Your task to perform on an android device: Open the calendar app, open the side menu, and click the "Day" option Image 0: 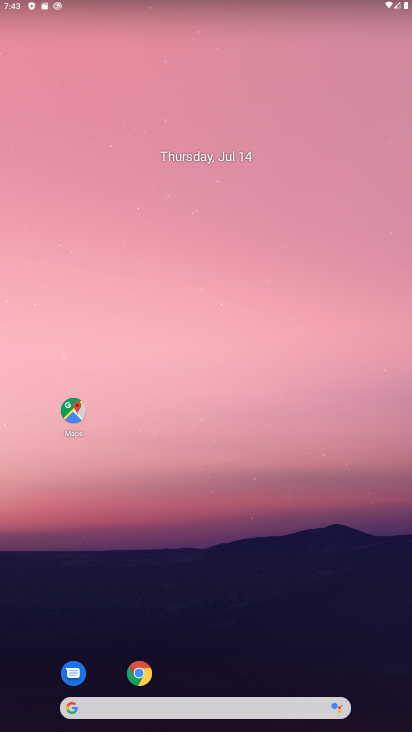
Step 0: drag from (168, 659) to (185, 352)
Your task to perform on an android device: Open the calendar app, open the side menu, and click the "Day" option Image 1: 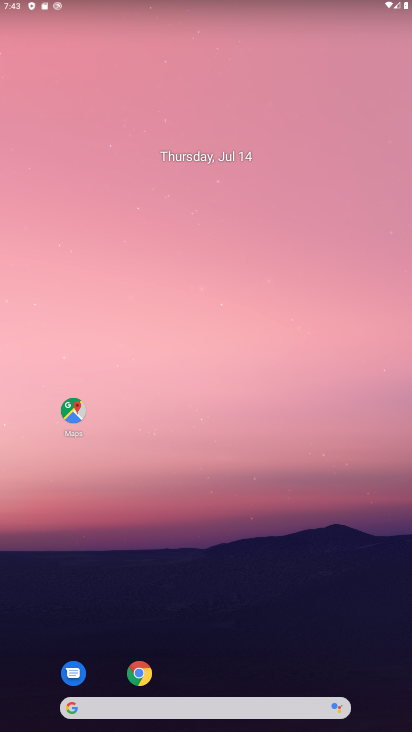
Step 1: drag from (185, 650) to (201, 184)
Your task to perform on an android device: Open the calendar app, open the side menu, and click the "Day" option Image 2: 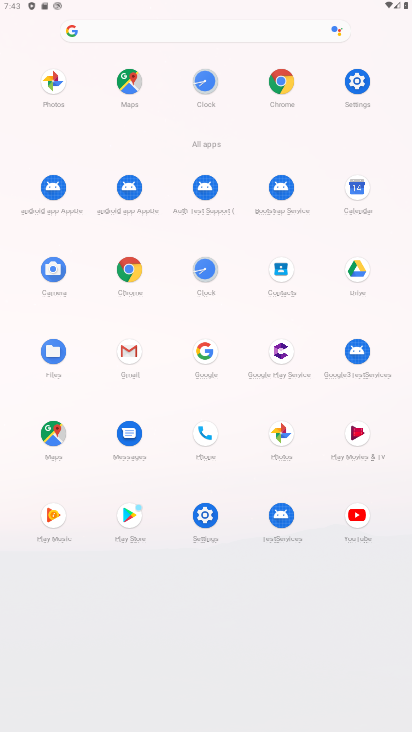
Step 2: click (359, 184)
Your task to perform on an android device: Open the calendar app, open the side menu, and click the "Day" option Image 3: 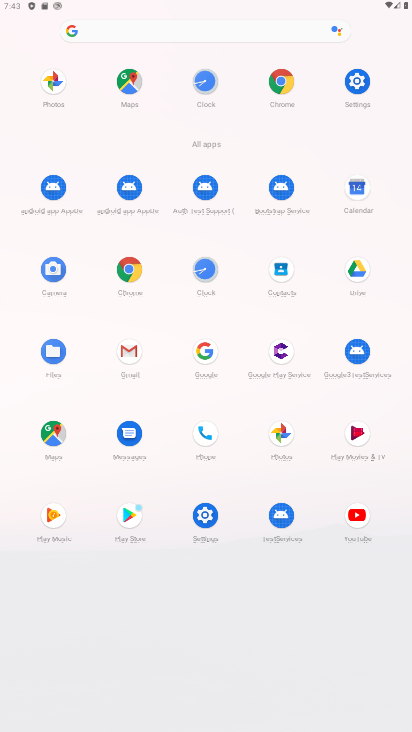
Step 3: click (356, 181)
Your task to perform on an android device: Open the calendar app, open the side menu, and click the "Day" option Image 4: 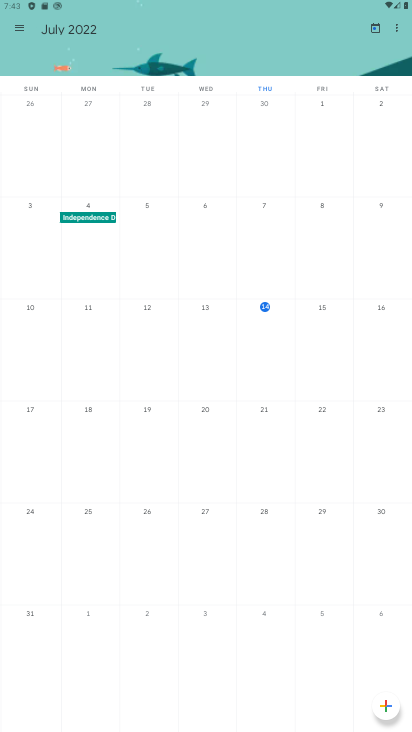
Step 4: click (16, 32)
Your task to perform on an android device: Open the calendar app, open the side menu, and click the "Day" option Image 5: 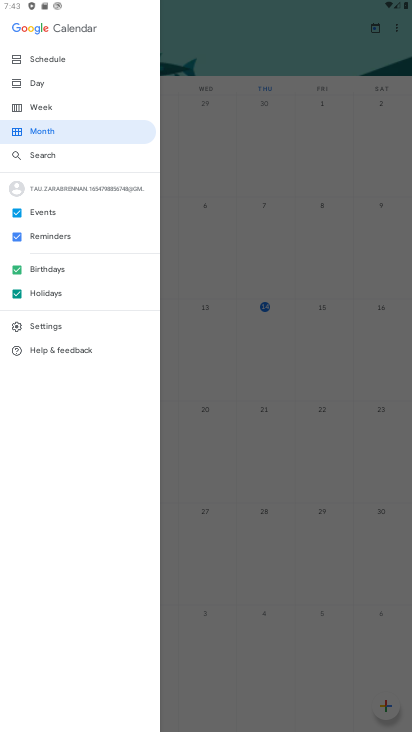
Step 5: click (24, 81)
Your task to perform on an android device: Open the calendar app, open the side menu, and click the "Day" option Image 6: 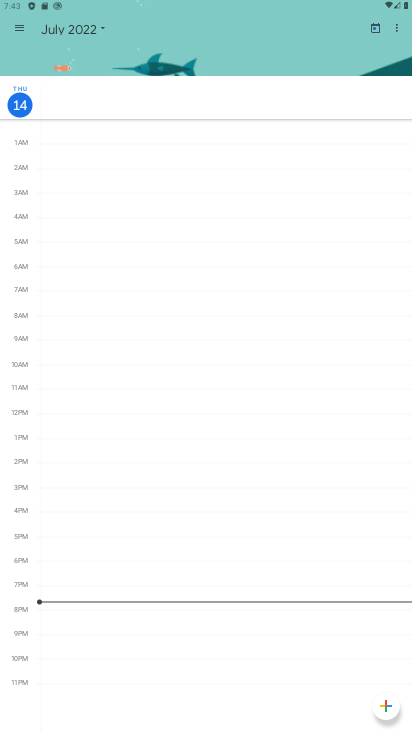
Step 6: task complete